Your task to perform on an android device: Open wifi settings Image 0: 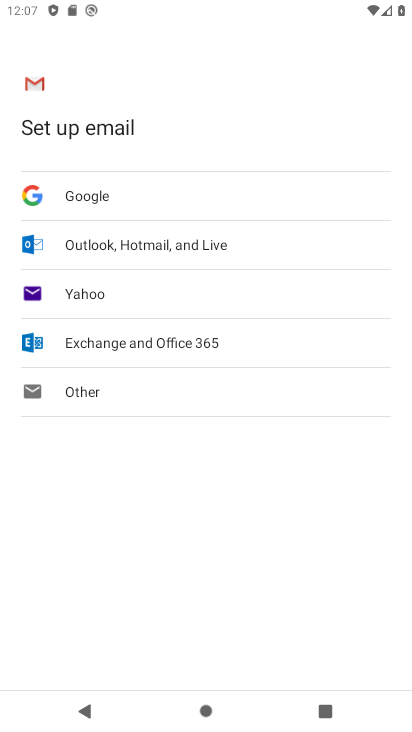
Step 0: task complete